Your task to perform on an android device: check android version Image 0: 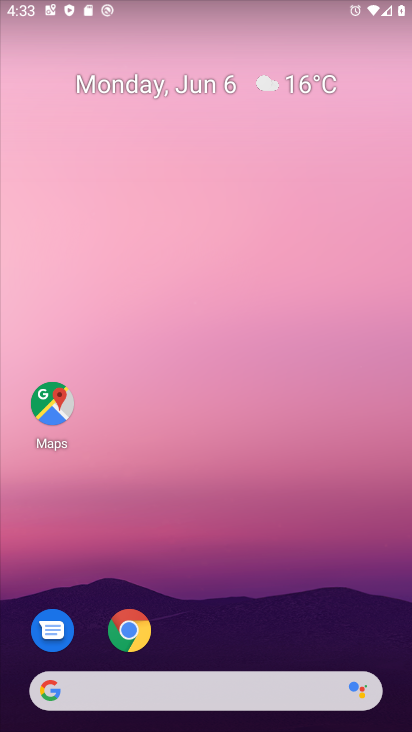
Step 0: press home button
Your task to perform on an android device: check android version Image 1: 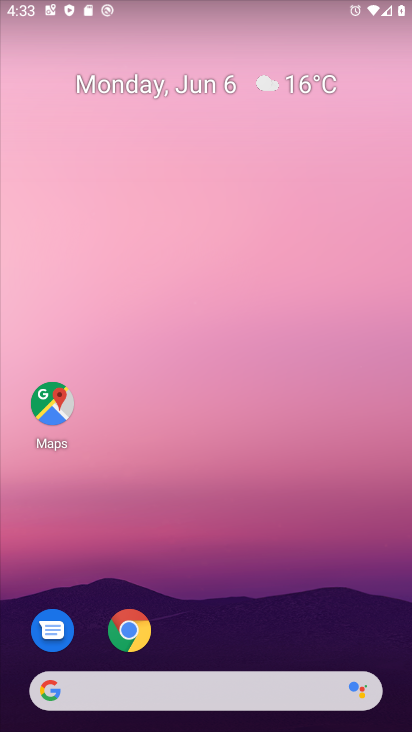
Step 1: drag from (297, 580) to (242, 7)
Your task to perform on an android device: check android version Image 2: 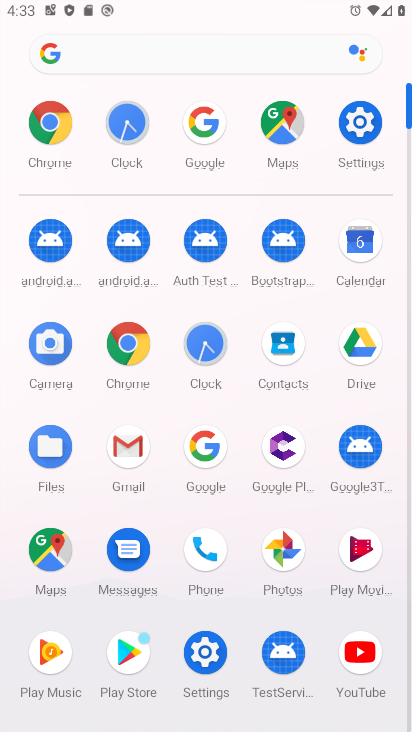
Step 2: click (361, 136)
Your task to perform on an android device: check android version Image 3: 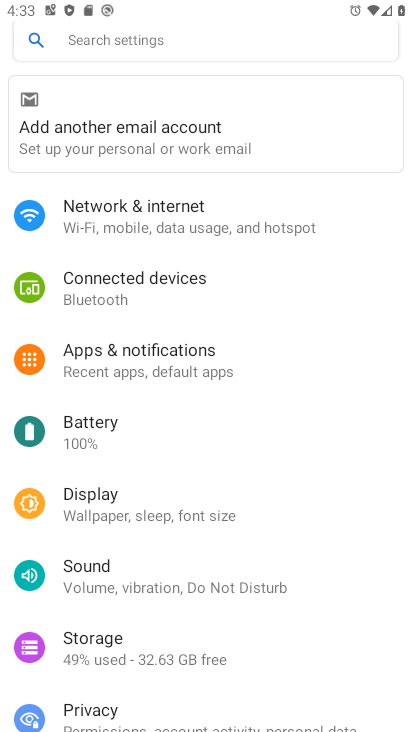
Step 3: drag from (264, 468) to (316, 43)
Your task to perform on an android device: check android version Image 4: 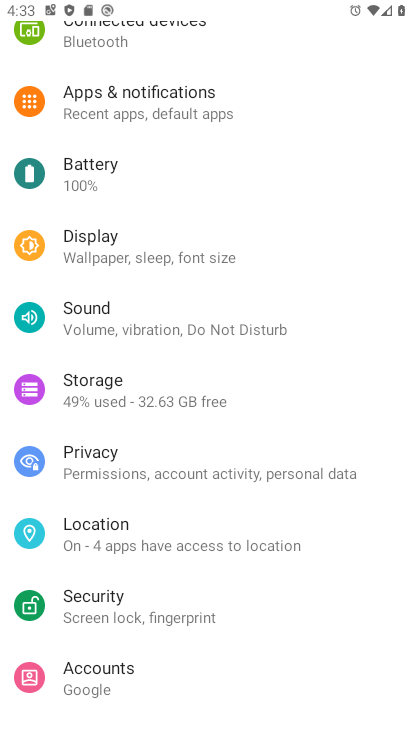
Step 4: drag from (227, 656) to (197, 161)
Your task to perform on an android device: check android version Image 5: 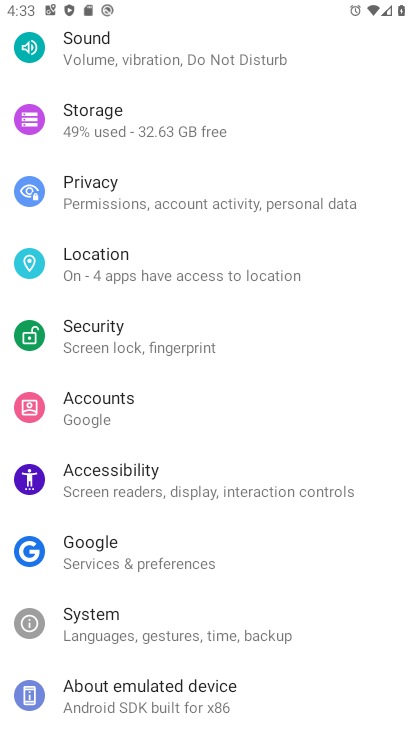
Step 5: click (235, 682)
Your task to perform on an android device: check android version Image 6: 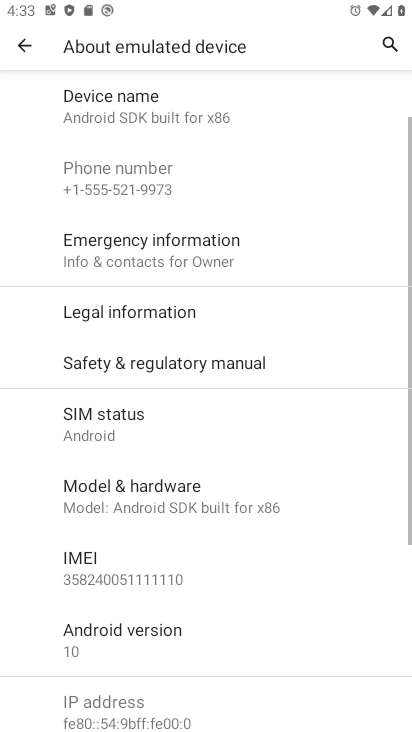
Step 6: click (255, 639)
Your task to perform on an android device: check android version Image 7: 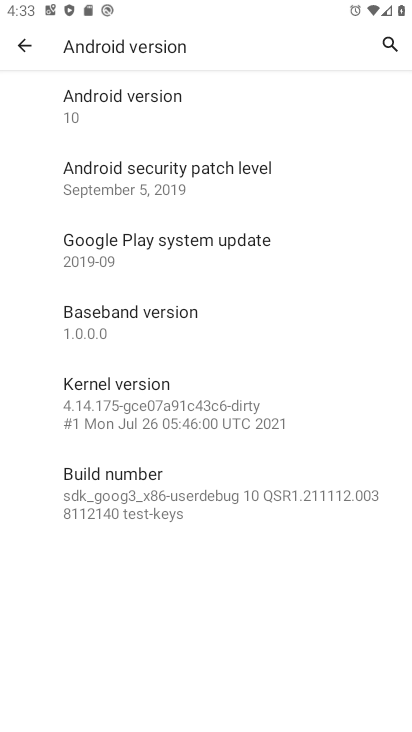
Step 7: task complete